Your task to perform on an android device: turn on the 12-hour format for clock Image 0: 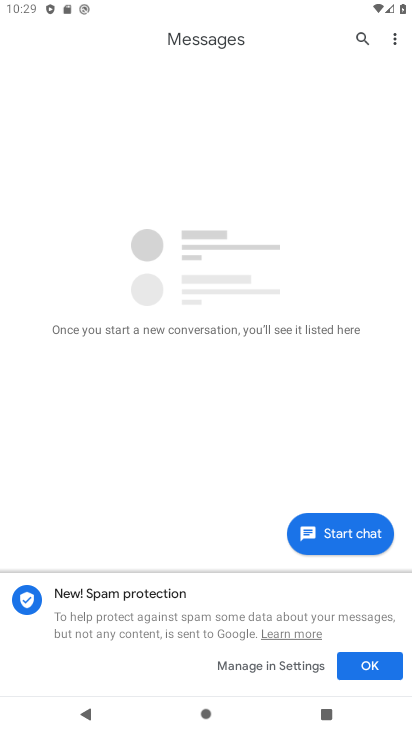
Step 0: click (408, 389)
Your task to perform on an android device: turn on the 12-hour format for clock Image 1: 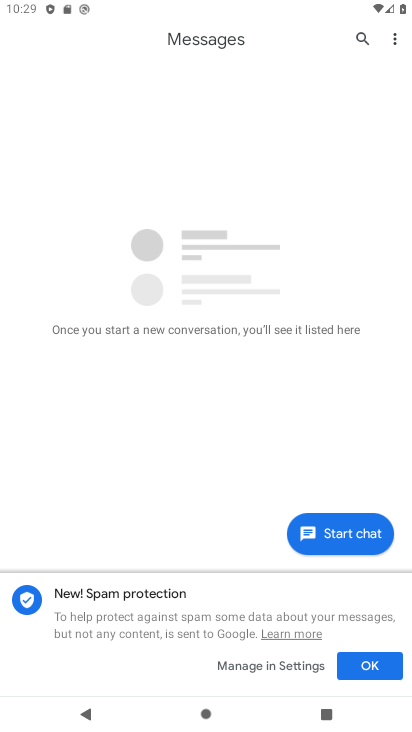
Step 1: press home button
Your task to perform on an android device: turn on the 12-hour format for clock Image 2: 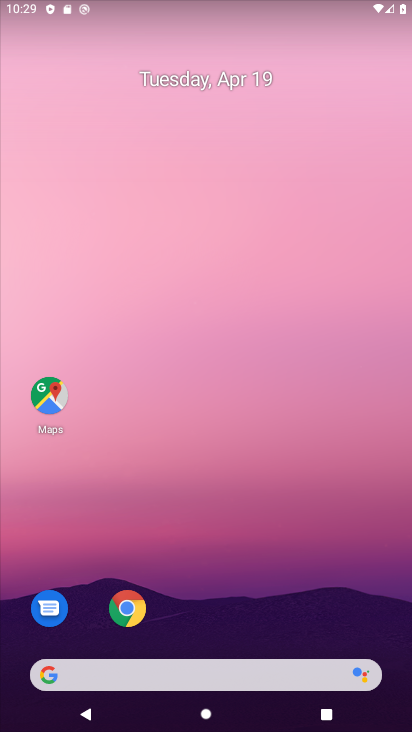
Step 2: drag from (304, 585) to (201, 191)
Your task to perform on an android device: turn on the 12-hour format for clock Image 3: 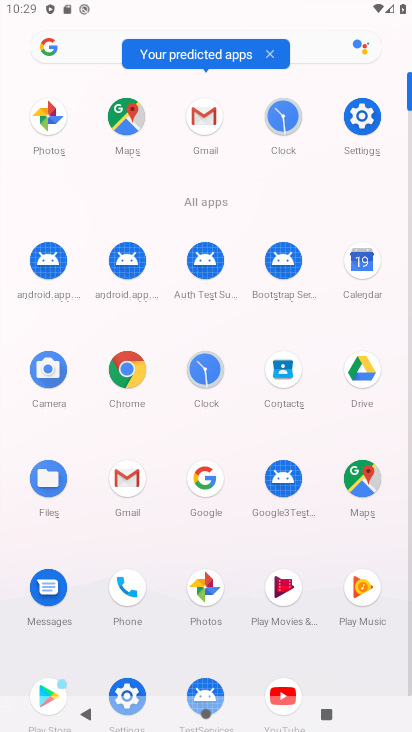
Step 3: click (207, 374)
Your task to perform on an android device: turn on the 12-hour format for clock Image 4: 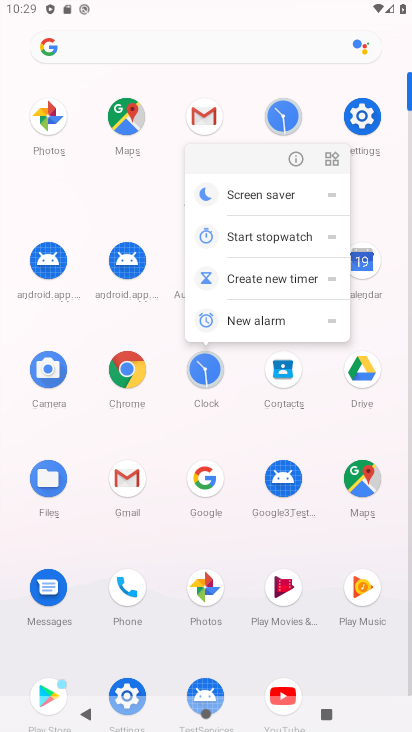
Step 4: click (207, 374)
Your task to perform on an android device: turn on the 12-hour format for clock Image 5: 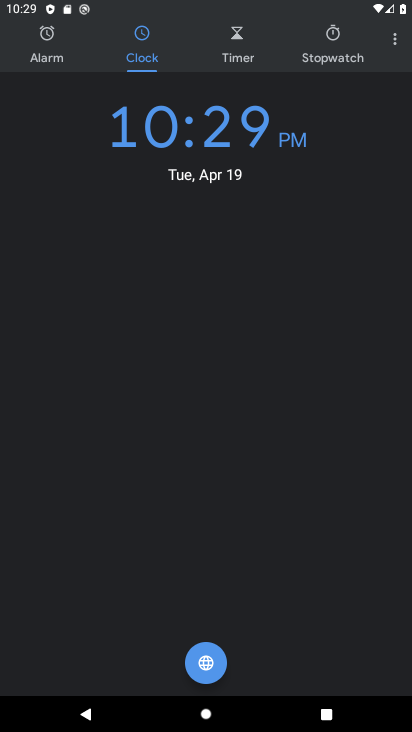
Step 5: click (390, 38)
Your task to perform on an android device: turn on the 12-hour format for clock Image 6: 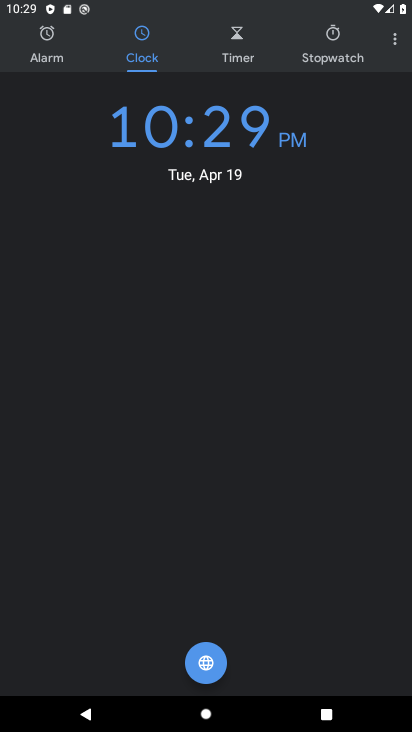
Step 6: click (390, 42)
Your task to perform on an android device: turn on the 12-hour format for clock Image 7: 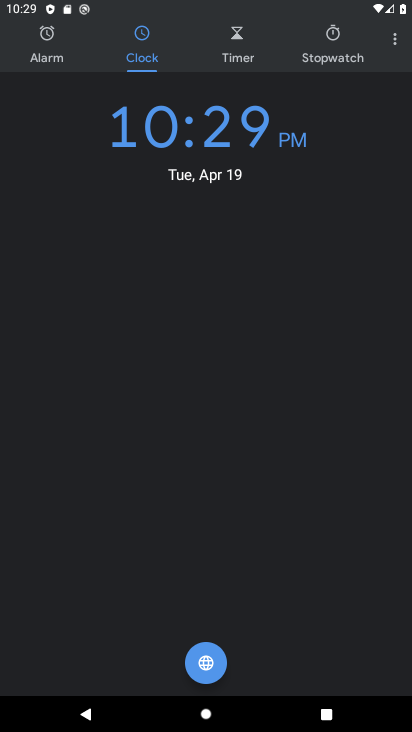
Step 7: click (390, 42)
Your task to perform on an android device: turn on the 12-hour format for clock Image 8: 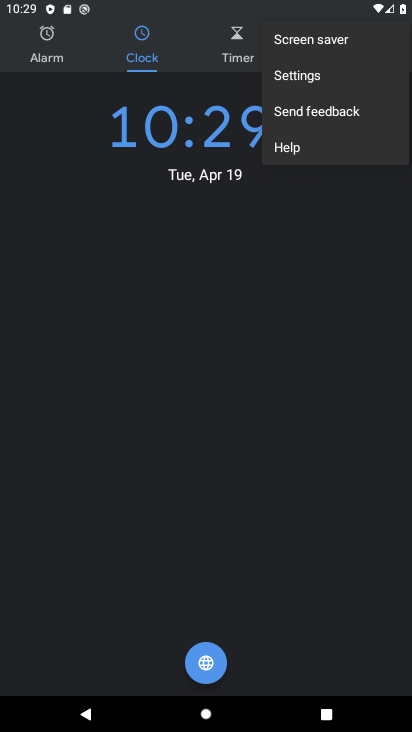
Step 8: click (298, 66)
Your task to perform on an android device: turn on the 12-hour format for clock Image 9: 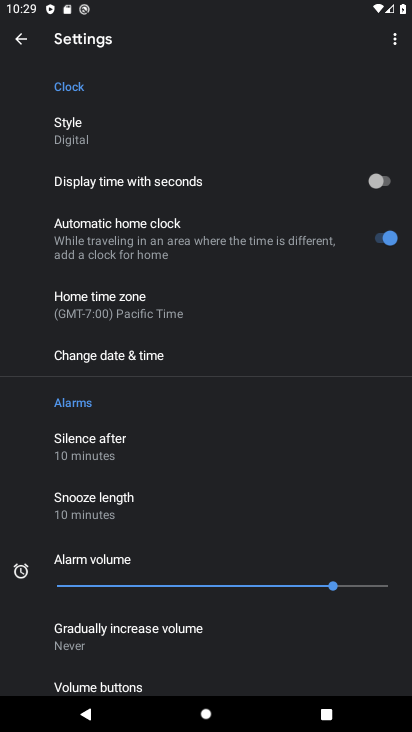
Step 9: drag from (274, 555) to (216, 278)
Your task to perform on an android device: turn on the 12-hour format for clock Image 10: 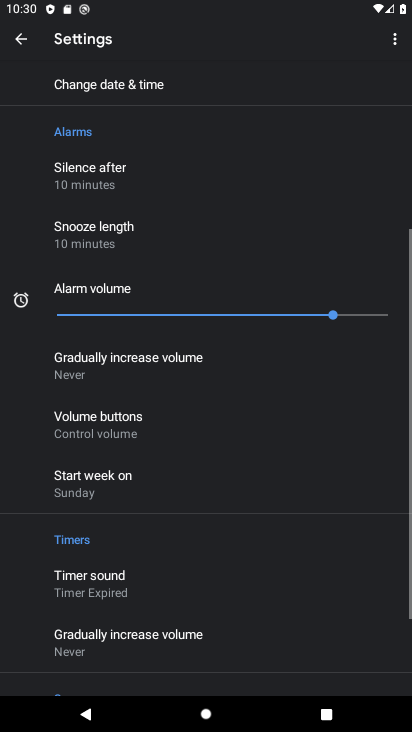
Step 10: drag from (216, 277) to (331, 630)
Your task to perform on an android device: turn on the 12-hour format for clock Image 11: 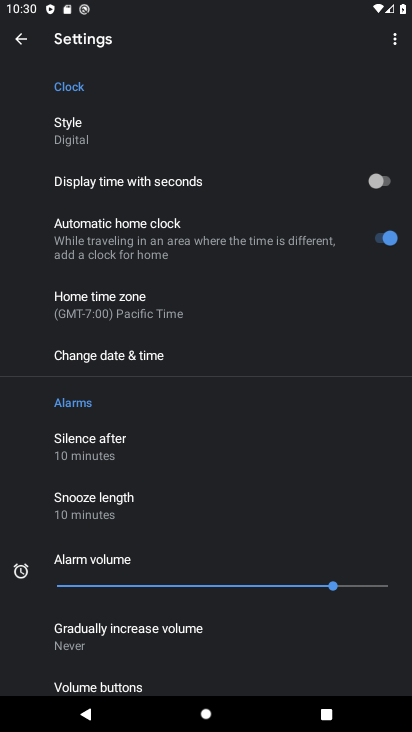
Step 11: click (128, 365)
Your task to perform on an android device: turn on the 12-hour format for clock Image 12: 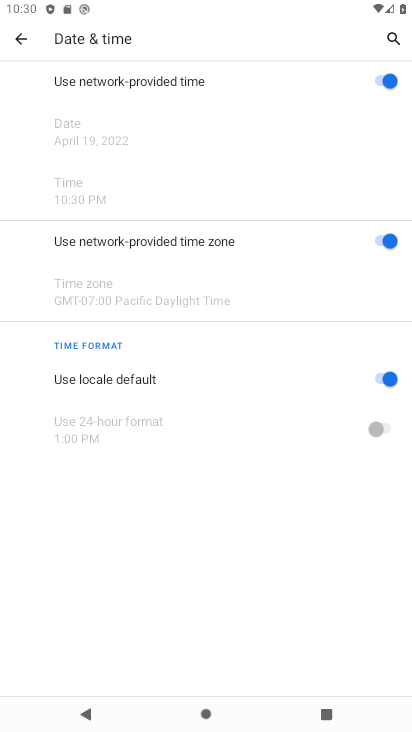
Step 12: click (382, 367)
Your task to perform on an android device: turn on the 12-hour format for clock Image 13: 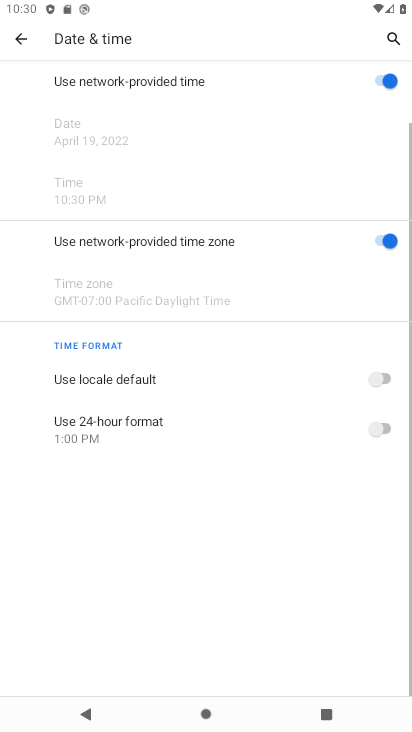
Step 13: task complete